Your task to perform on an android device: allow cookies in the chrome app Image 0: 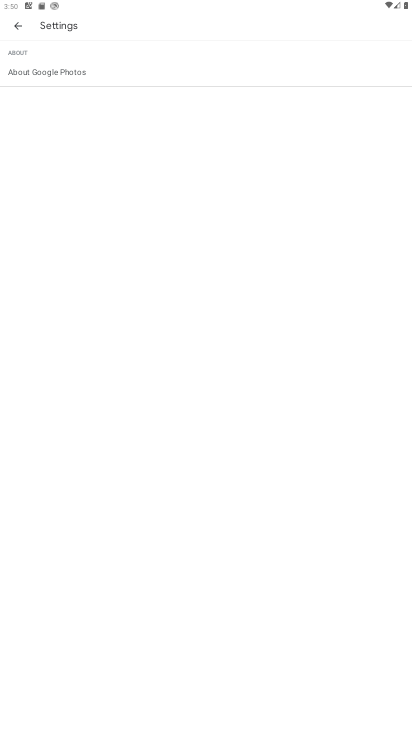
Step 0: press home button
Your task to perform on an android device: allow cookies in the chrome app Image 1: 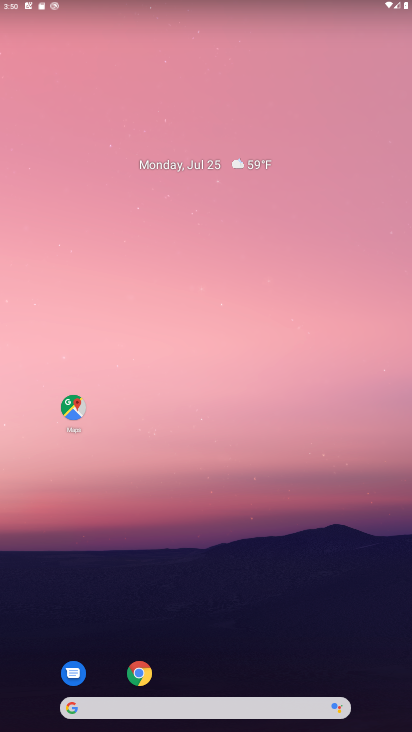
Step 1: click (143, 681)
Your task to perform on an android device: allow cookies in the chrome app Image 2: 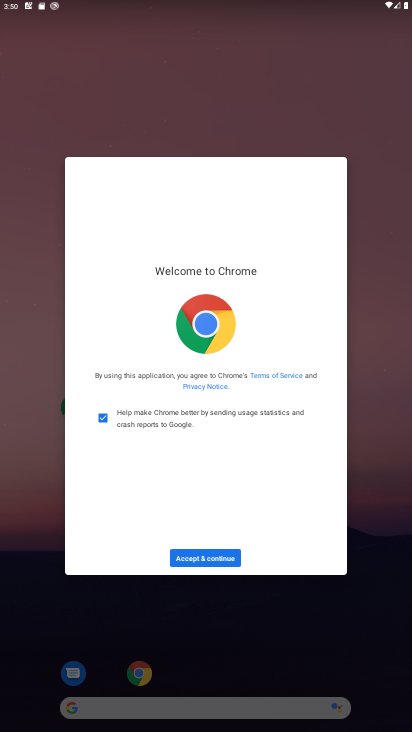
Step 2: click (188, 561)
Your task to perform on an android device: allow cookies in the chrome app Image 3: 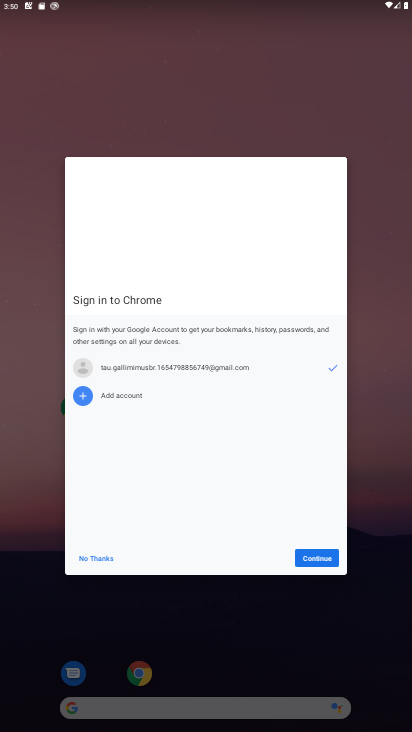
Step 3: click (313, 558)
Your task to perform on an android device: allow cookies in the chrome app Image 4: 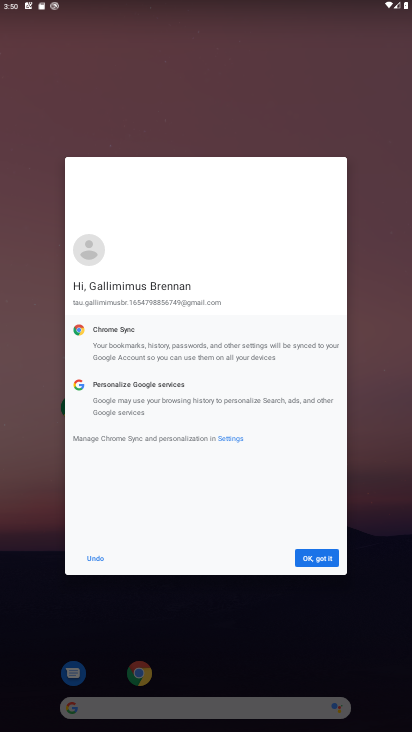
Step 4: click (327, 563)
Your task to perform on an android device: allow cookies in the chrome app Image 5: 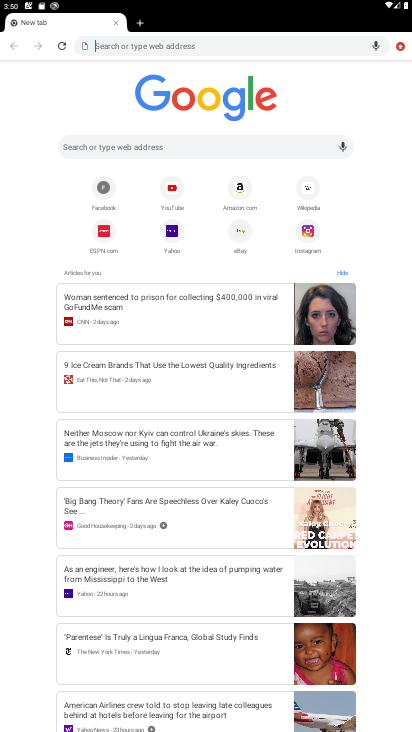
Step 5: click (406, 45)
Your task to perform on an android device: allow cookies in the chrome app Image 6: 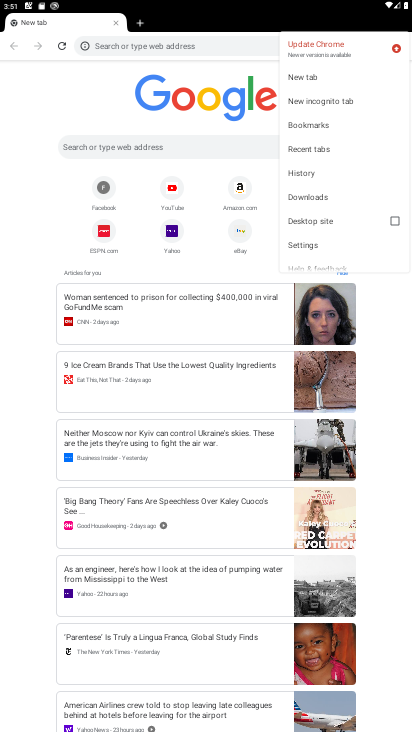
Step 6: click (299, 246)
Your task to perform on an android device: allow cookies in the chrome app Image 7: 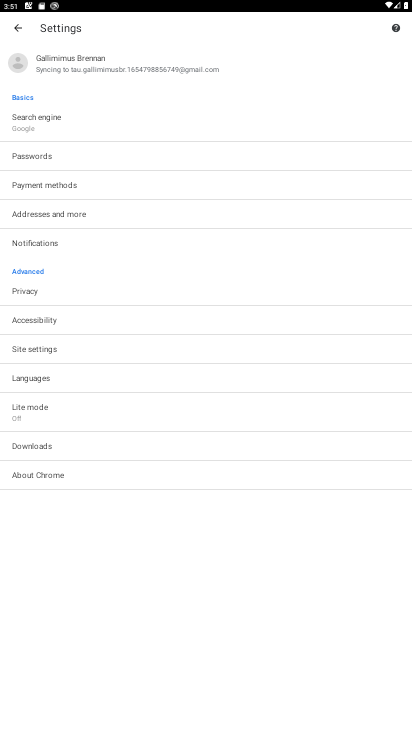
Step 7: click (56, 350)
Your task to perform on an android device: allow cookies in the chrome app Image 8: 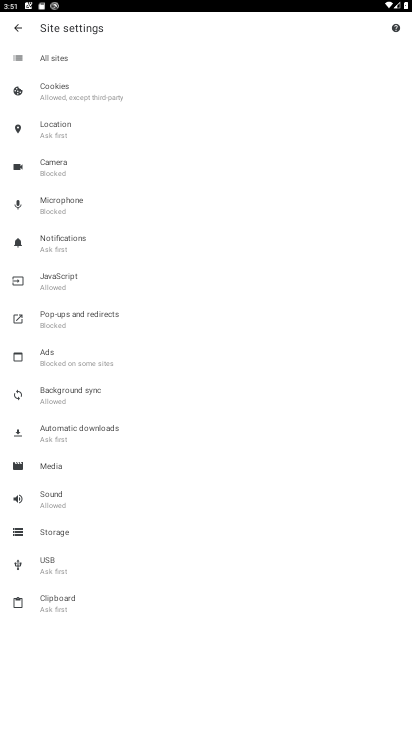
Step 8: click (84, 94)
Your task to perform on an android device: allow cookies in the chrome app Image 9: 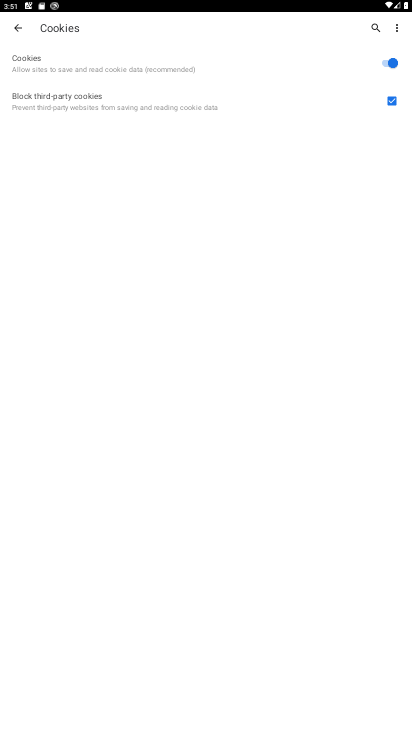
Step 9: click (397, 100)
Your task to perform on an android device: allow cookies in the chrome app Image 10: 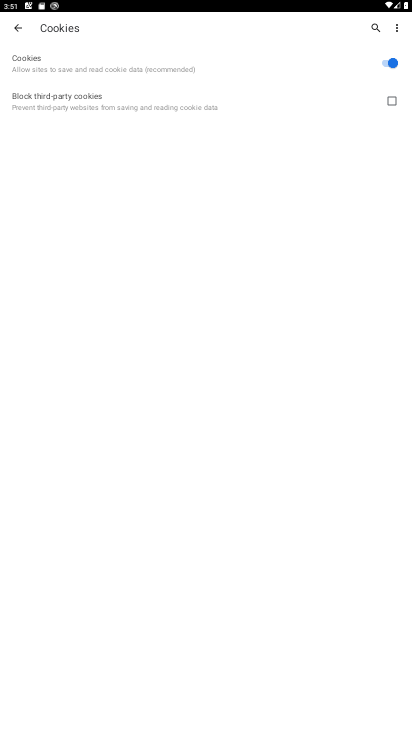
Step 10: task complete